Your task to perform on an android device: View the shopping cart on target.com. Search for logitech g903 on target.com, select the first entry, and add it to the cart. Image 0: 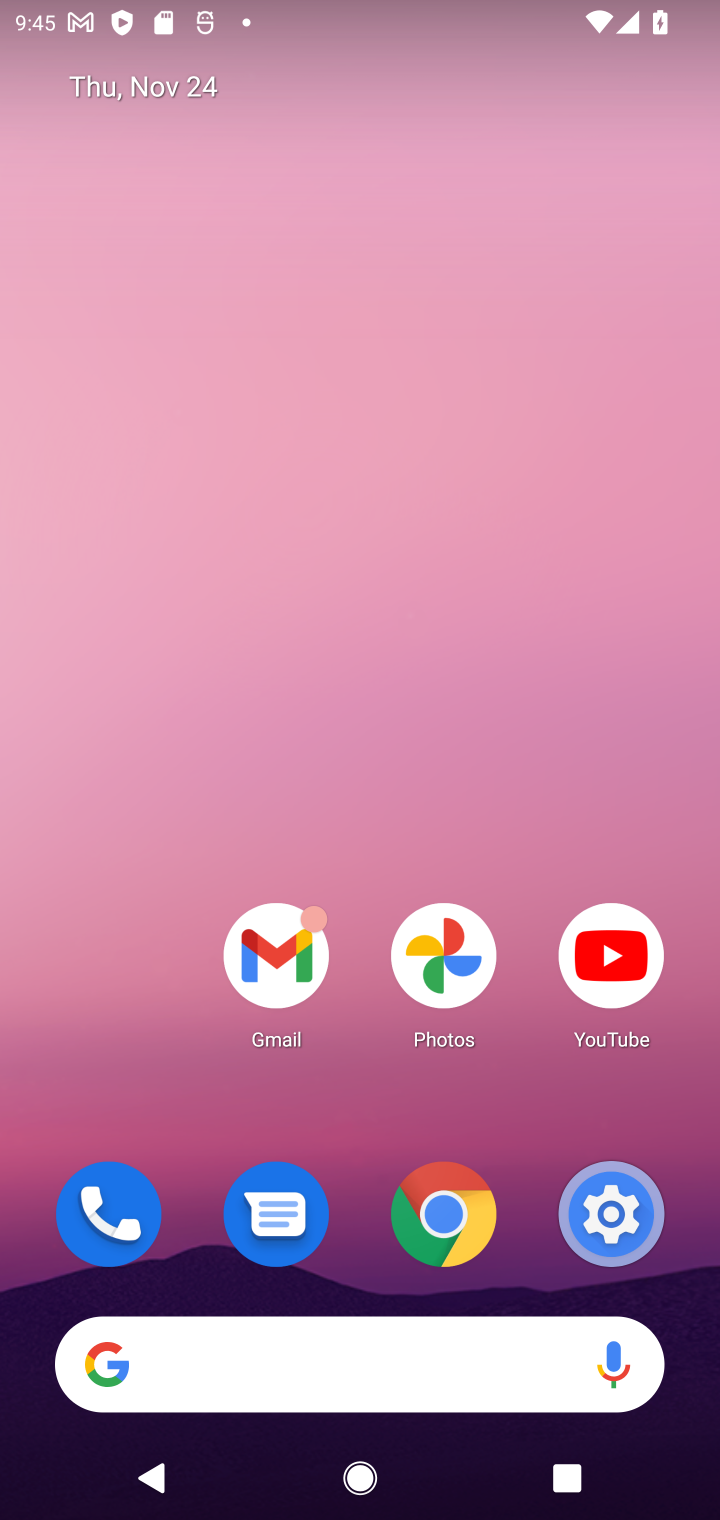
Step 0: click (387, 1398)
Your task to perform on an android device: View the shopping cart on target.com. Search for logitech g903 on target.com, select the first entry, and add it to the cart. Image 1: 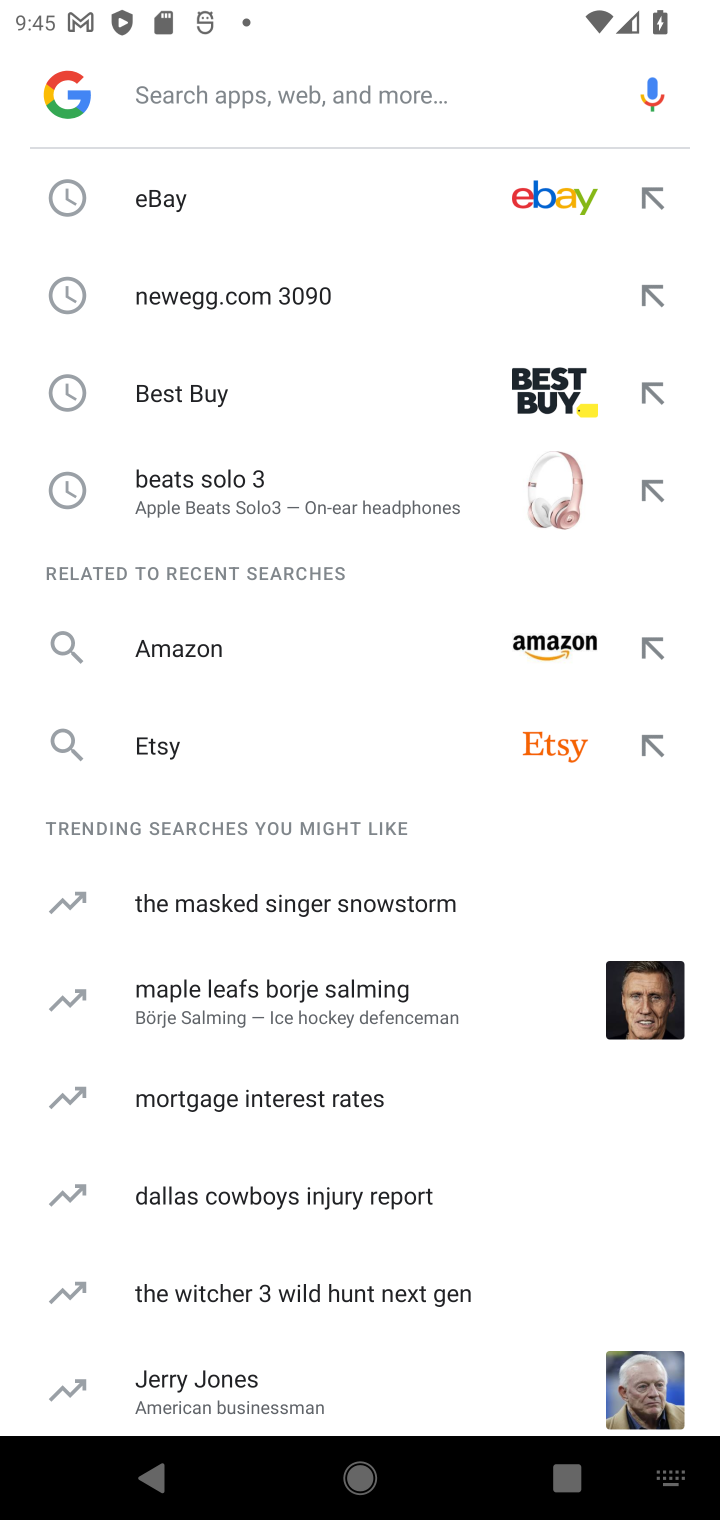
Step 1: type "target"
Your task to perform on an android device: View the shopping cart on target.com. Search for logitech g903 on target.com, select the first entry, and add it to the cart. Image 2: 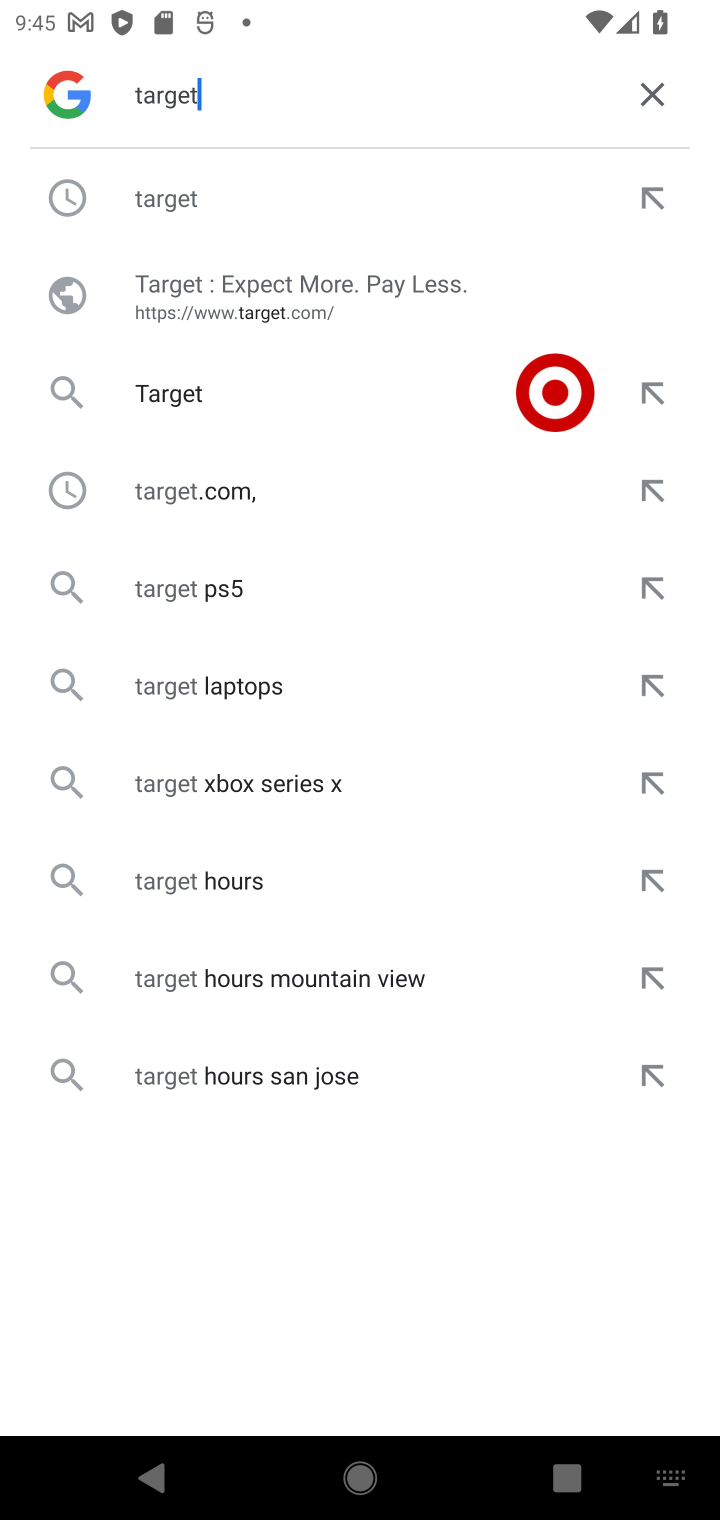
Step 2: click (326, 336)
Your task to perform on an android device: View the shopping cart on target.com. Search for logitech g903 on target.com, select the first entry, and add it to the cart. Image 3: 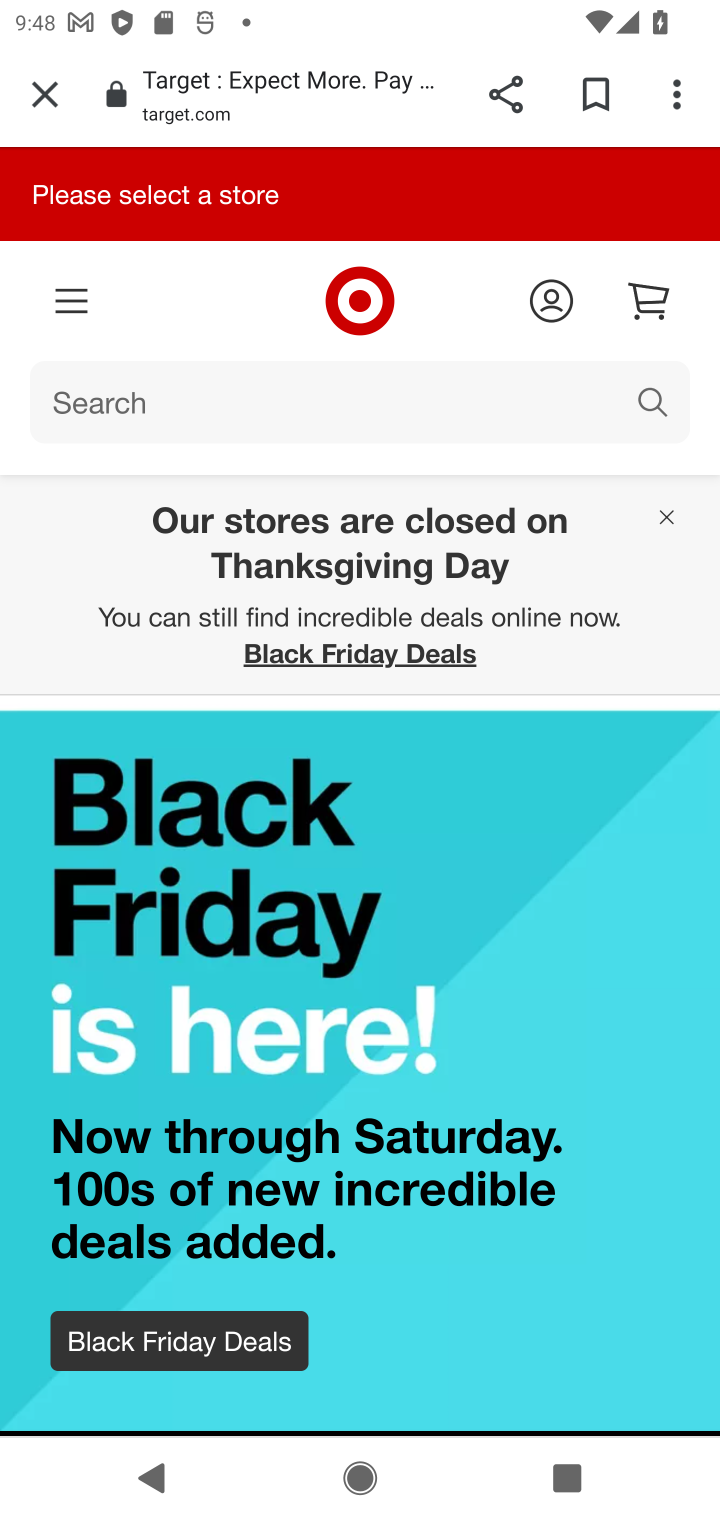
Step 3: task complete